Your task to perform on an android device: find photos in the google photos app Image 0: 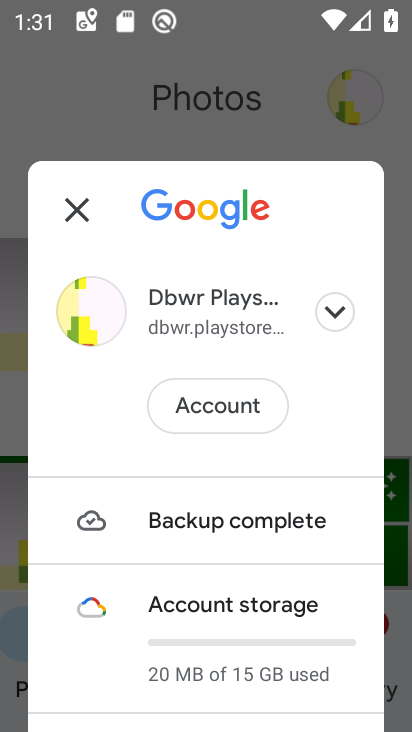
Step 0: press home button
Your task to perform on an android device: find photos in the google photos app Image 1: 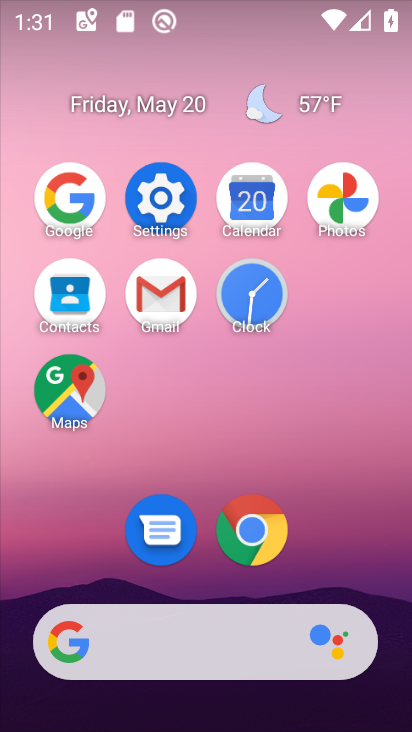
Step 1: click (336, 204)
Your task to perform on an android device: find photos in the google photos app Image 2: 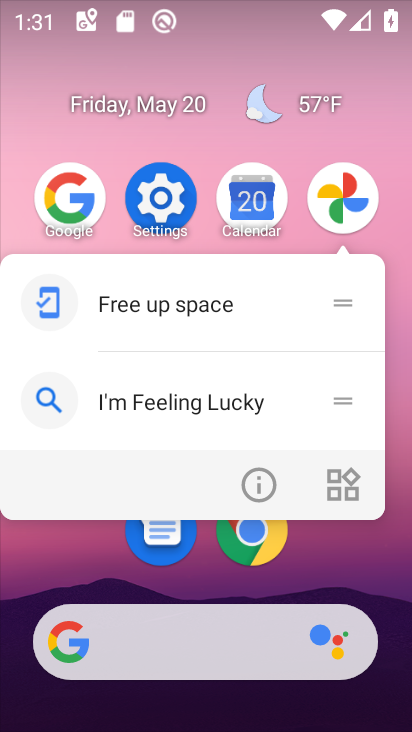
Step 2: click (336, 204)
Your task to perform on an android device: find photos in the google photos app Image 3: 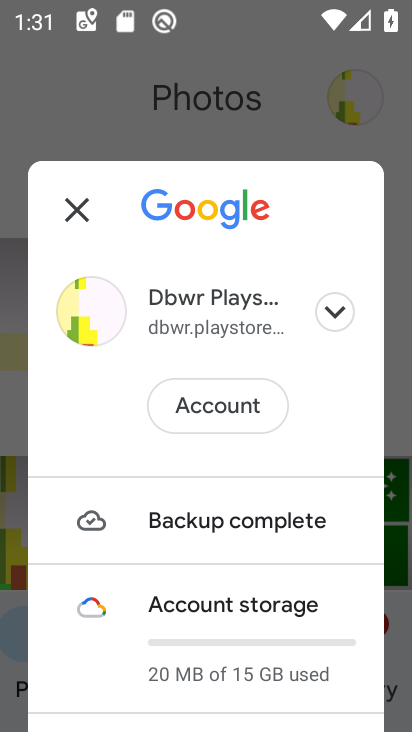
Step 3: click (88, 195)
Your task to perform on an android device: find photos in the google photos app Image 4: 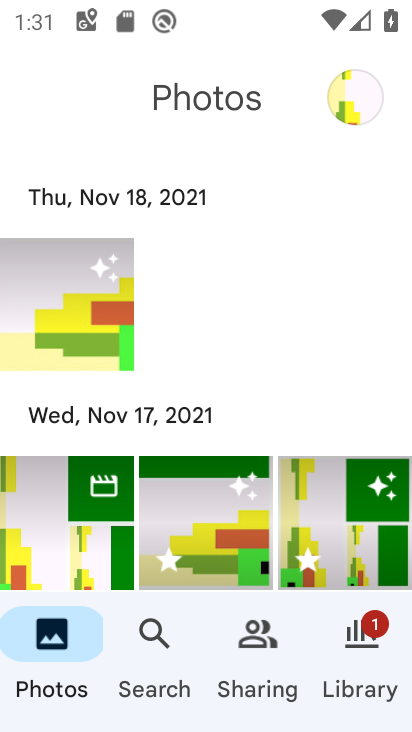
Step 4: click (71, 336)
Your task to perform on an android device: find photos in the google photos app Image 5: 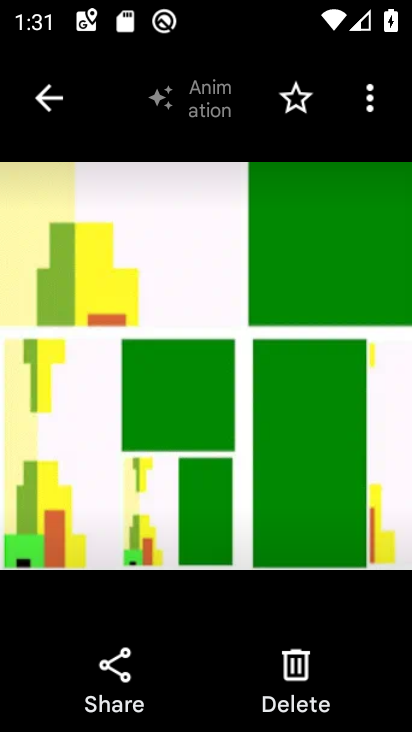
Step 5: task complete